Your task to perform on an android device: turn off smart reply in the gmail app Image 0: 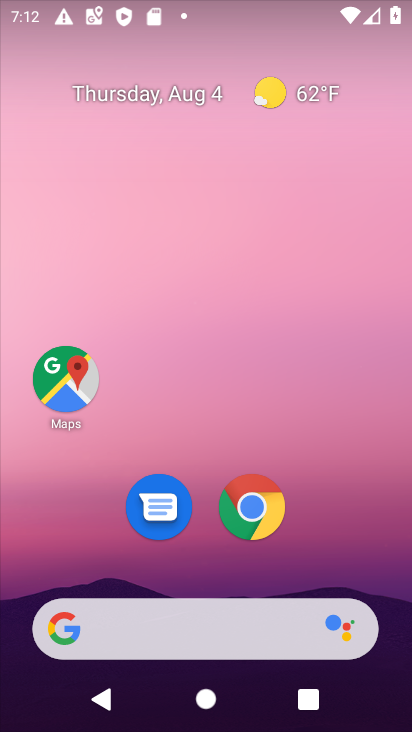
Step 0: drag from (402, 620) to (220, 68)
Your task to perform on an android device: turn off smart reply in the gmail app Image 1: 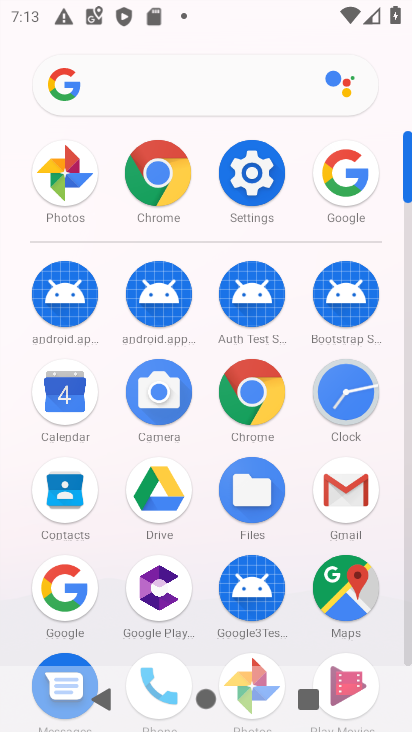
Step 1: click (354, 487)
Your task to perform on an android device: turn off smart reply in the gmail app Image 2: 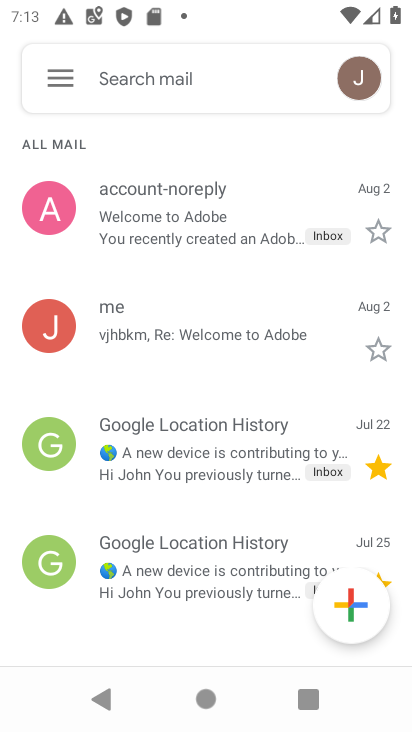
Step 2: click (57, 67)
Your task to perform on an android device: turn off smart reply in the gmail app Image 3: 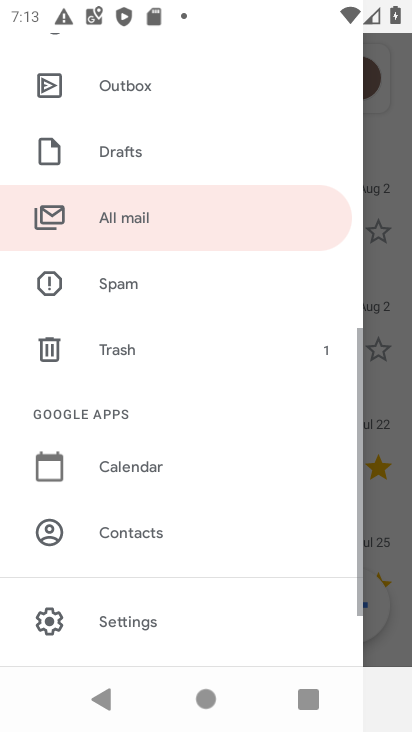
Step 3: click (112, 608)
Your task to perform on an android device: turn off smart reply in the gmail app Image 4: 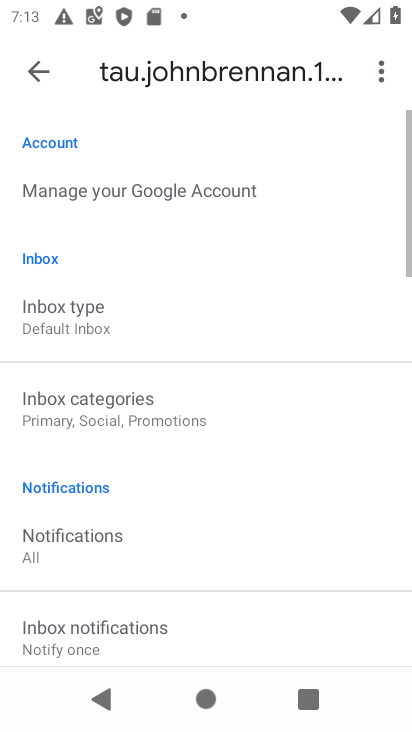
Step 4: drag from (128, 589) to (174, 82)
Your task to perform on an android device: turn off smart reply in the gmail app Image 5: 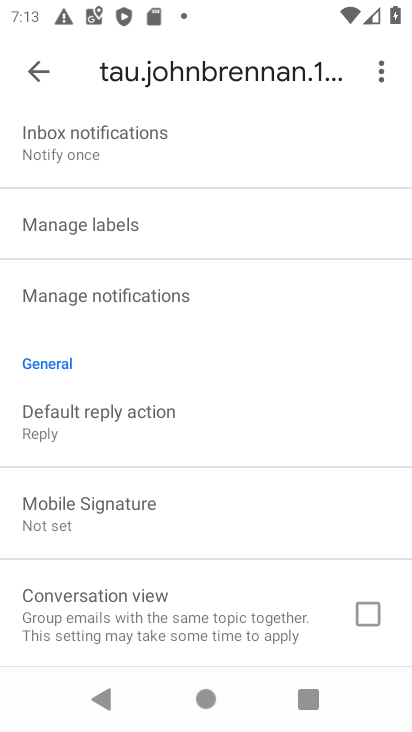
Step 5: drag from (89, 597) to (175, 97)
Your task to perform on an android device: turn off smart reply in the gmail app Image 6: 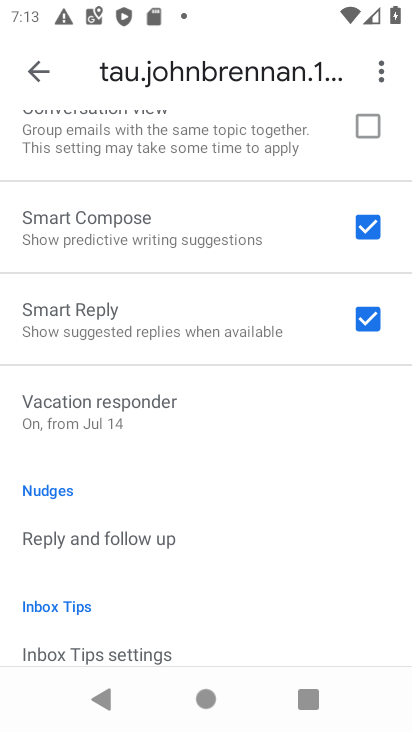
Step 6: click (250, 315)
Your task to perform on an android device: turn off smart reply in the gmail app Image 7: 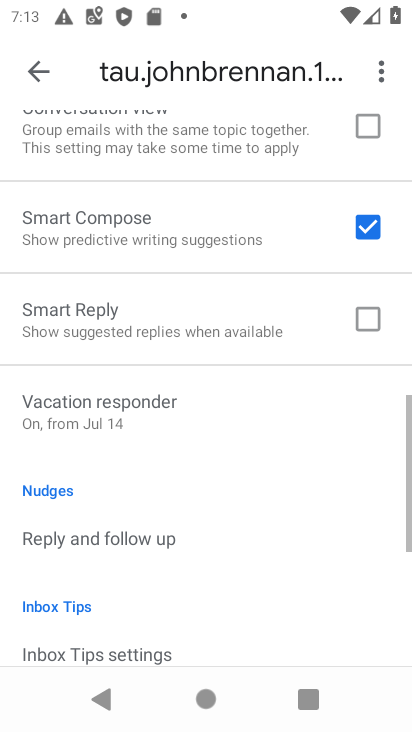
Step 7: task complete